Your task to perform on an android device: Open Google Image 0: 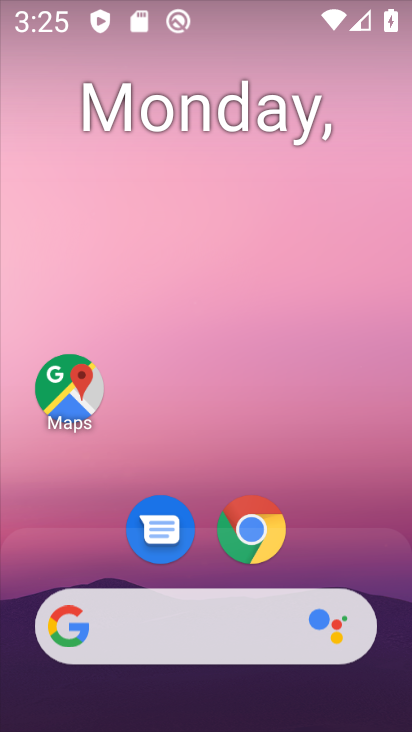
Step 0: drag from (212, 582) to (173, 139)
Your task to perform on an android device: Open Google Image 1: 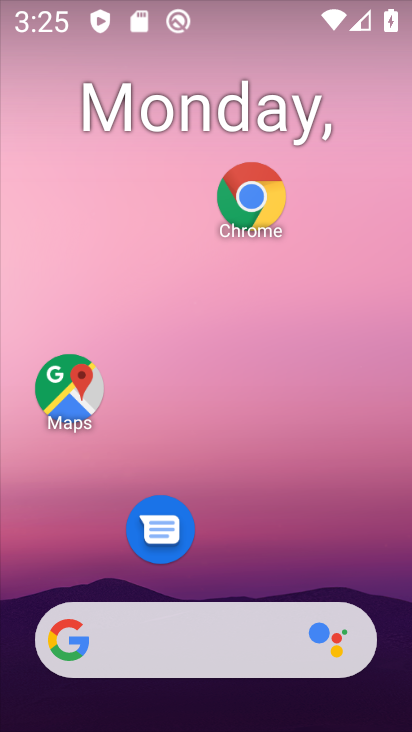
Step 1: click (165, 121)
Your task to perform on an android device: Open Google Image 2: 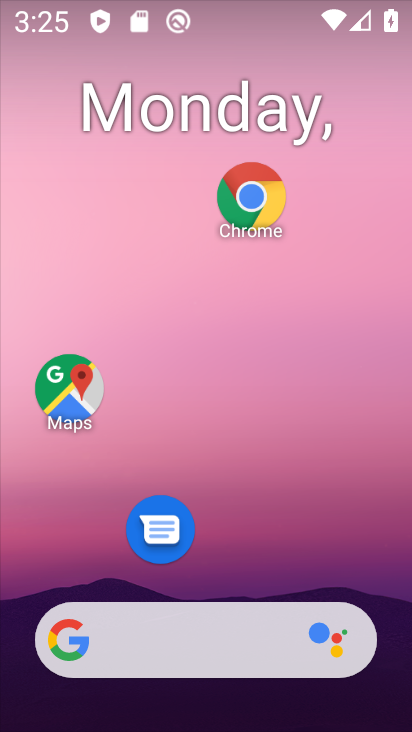
Step 2: drag from (246, 545) to (246, 86)
Your task to perform on an android device: Open Google Image 3: 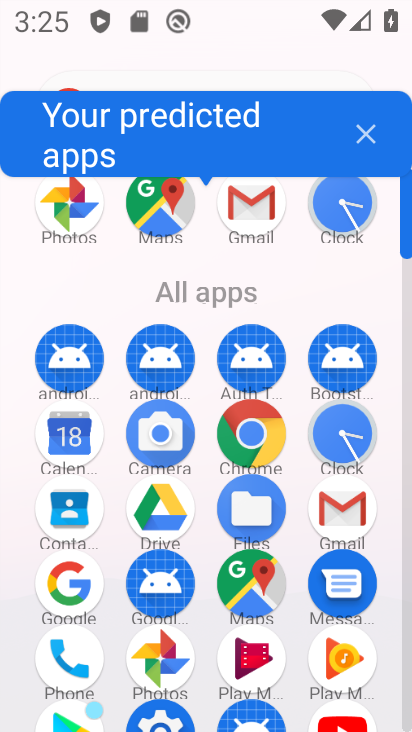
Step 3: click (83, 586)
Your task to perform on an android device: Open Google Image 4: 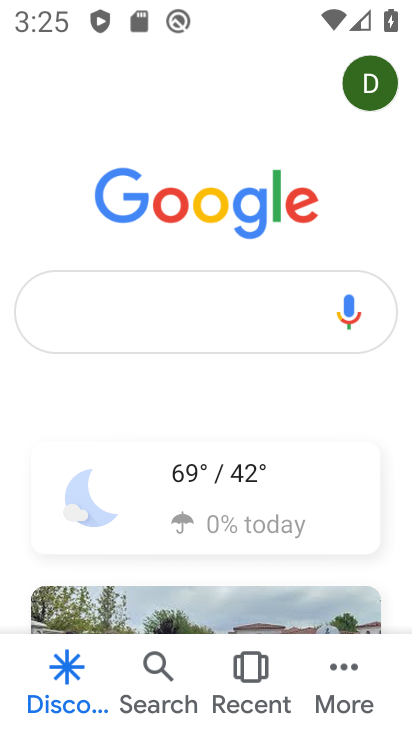
Step 4: task complete